Your task to perform on an android device: Search for bose soundlink on ebay.com, select the first entry, and add it to the cart. Image 0: 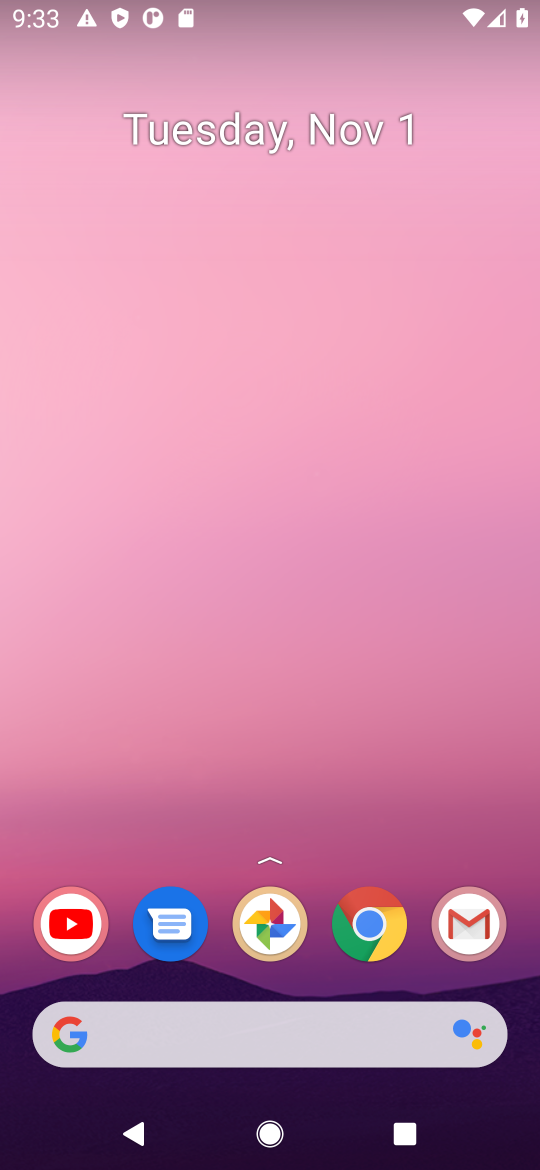
Step 0: click (380, 921)
Your task to perform on an android device: Search for bose soundlink on ebay.com, select the first entry, and add it to the cart. Image 1: 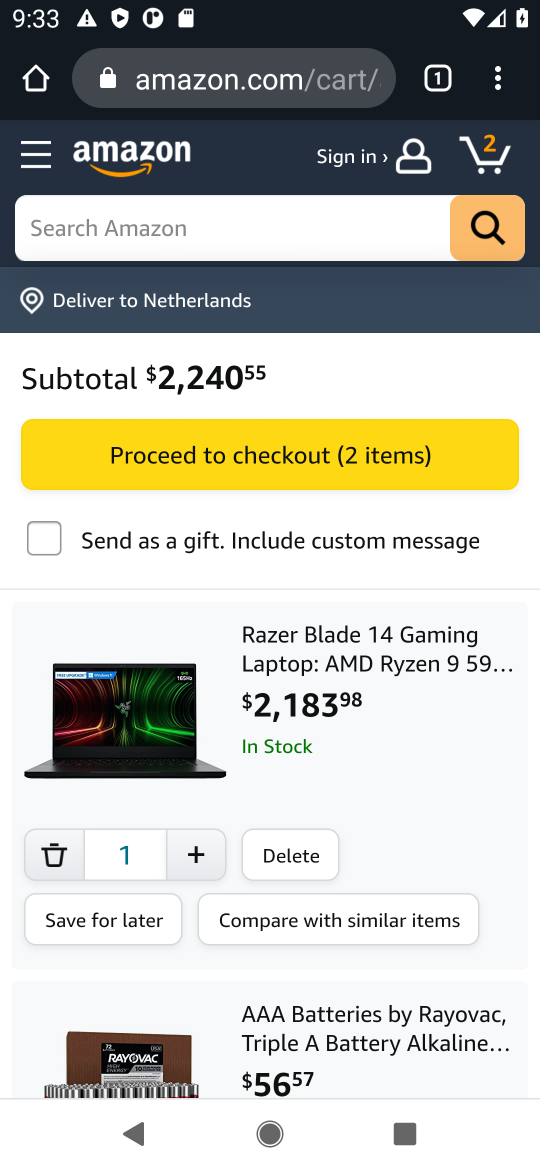
Step 1: click (307, 80)
Your task to perform on an android device: Search for bose soundlink on ebay.com, select the first entry, and add it to the cart. Image 2: 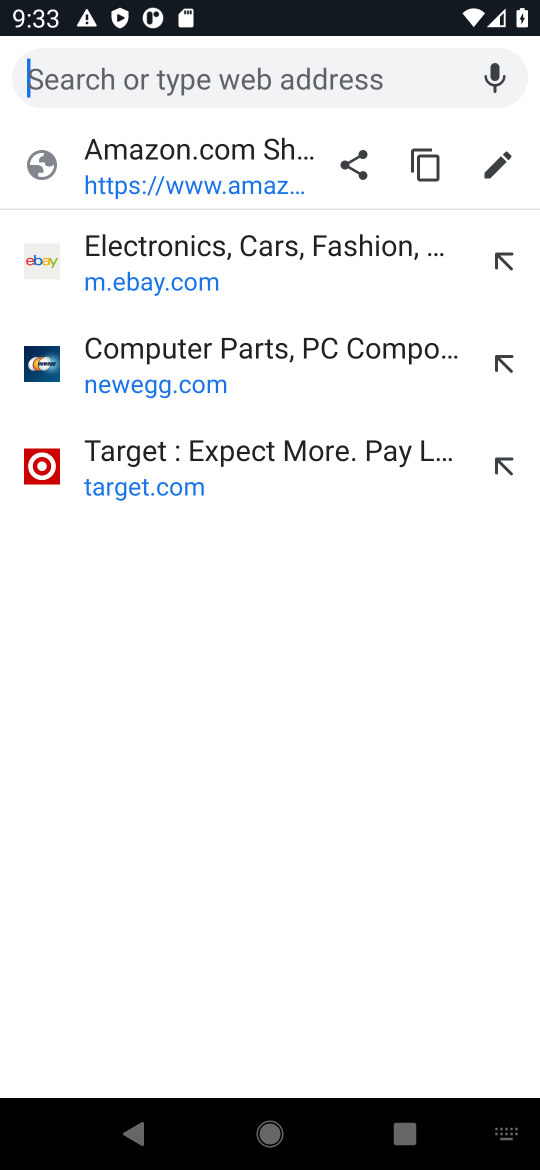
Step 2: click (235, 254)
Your task to perform on an android device: Search for bose soundlink on ebay.com, select the first entry, and add it to the cart. Image 3: 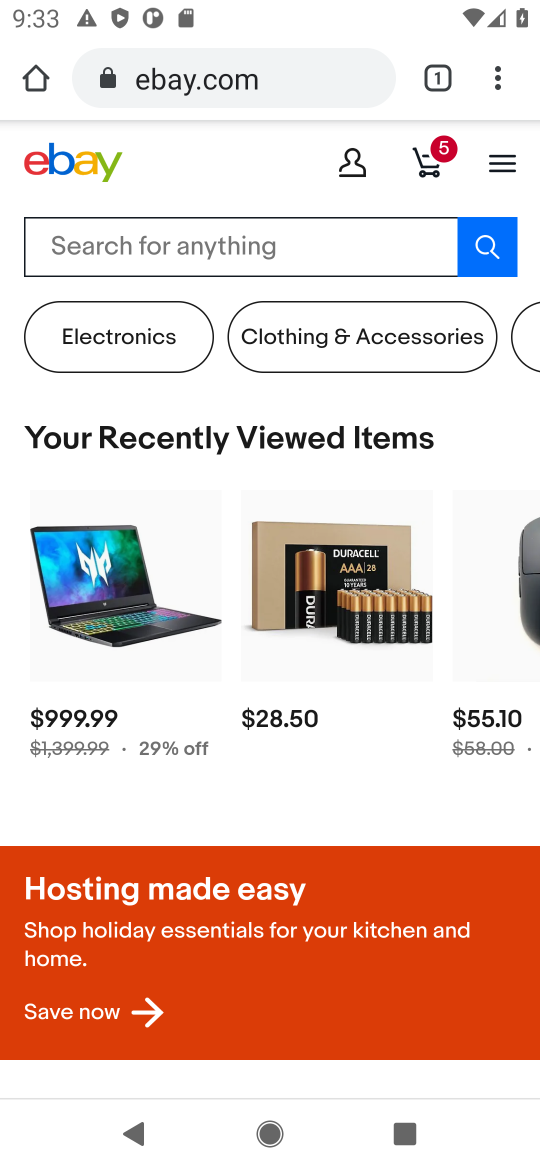
Step 3: click (226, 247)
Your task to perform on an android device: Search for bose soundlink on ebay.com, select the first entry, and add it to the cart. Image 4: 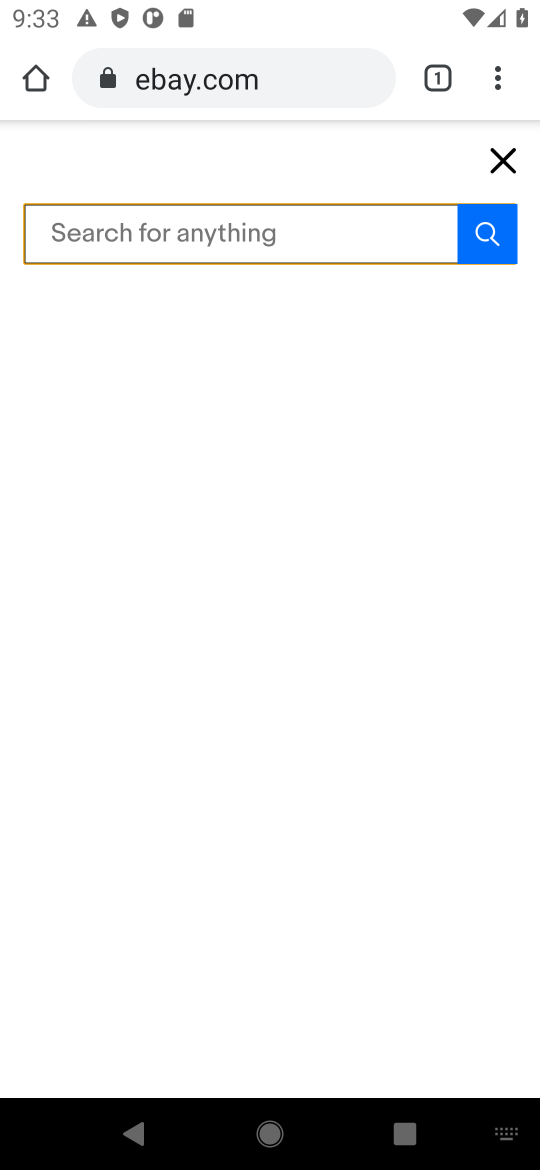
Step 4: type "bose soundlink"
Your task to perform on an android device: Search for bose soundlink on ebay.com, select the first entry, and add it to the cart. Image 5: 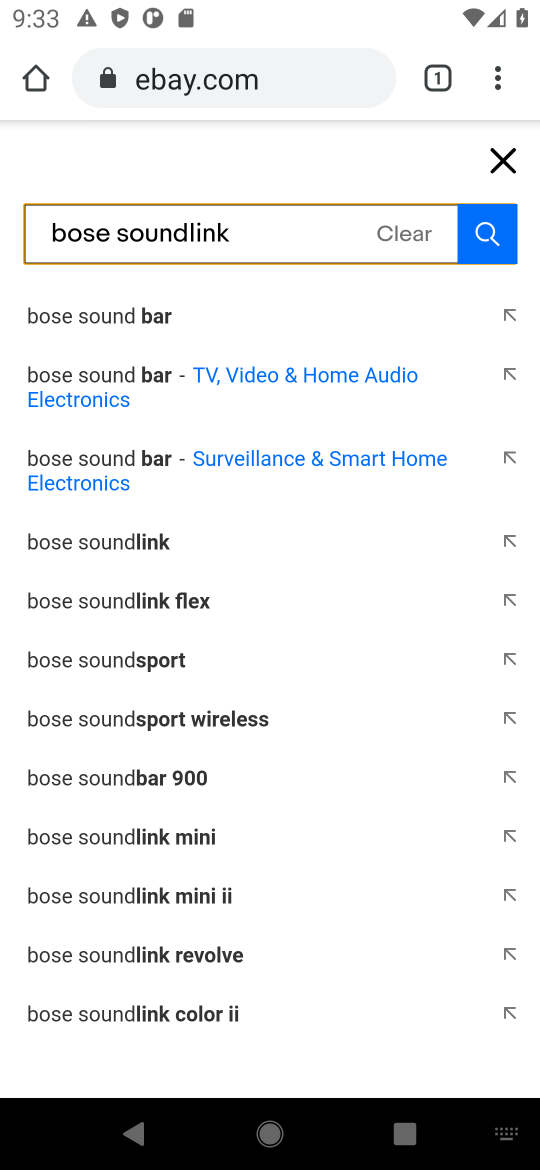
Step 5: click (495, 240)
Your task to perform on an android device: Search for bose soundlink on ebay.com, select the first entry, and add it to the cart. Image 6: 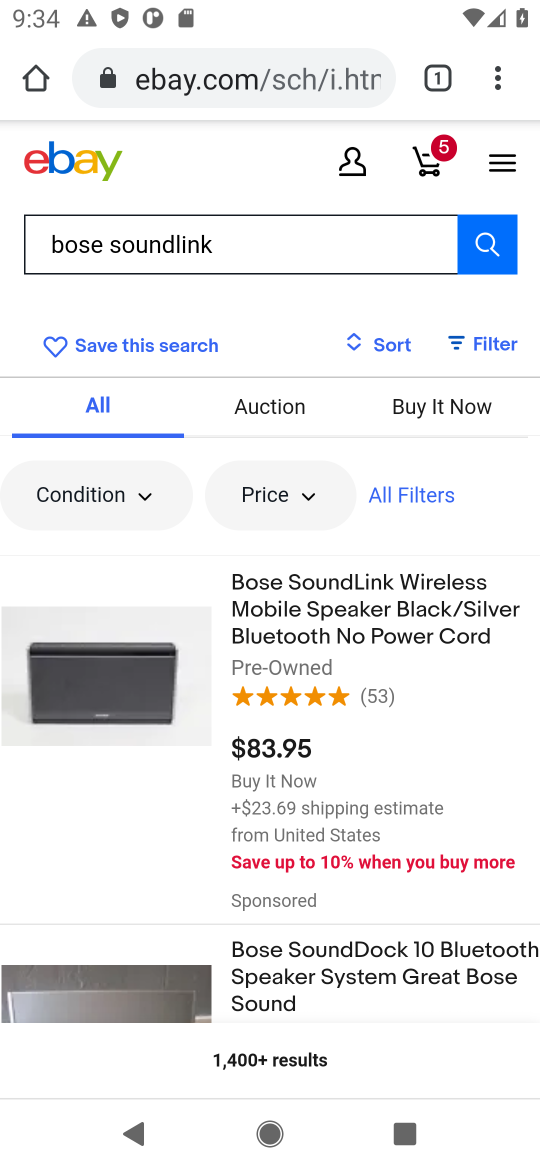
Step 6: click (285, 614)
Your task to perform on an android device: Search for bose soundlink on ebay.com, select the first entry, and add it to the cart. Image 7: 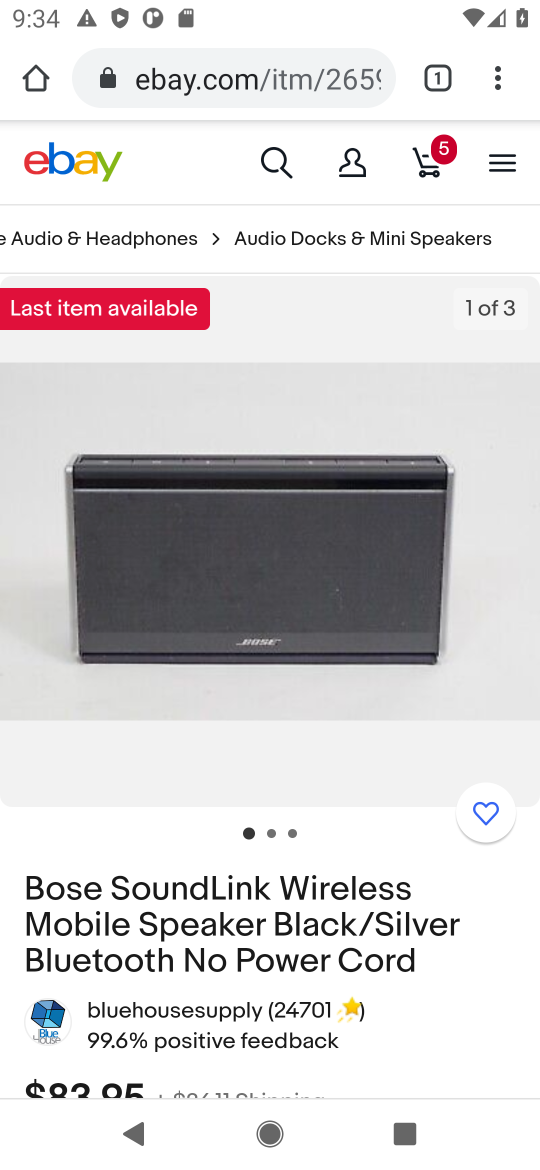
Step 7: drag from (462, 970) to (469, 319)
Your task to perform on an android device: Search for bose soundlink on ebay.com, select the first entry, and add it to the cart. Image 8: 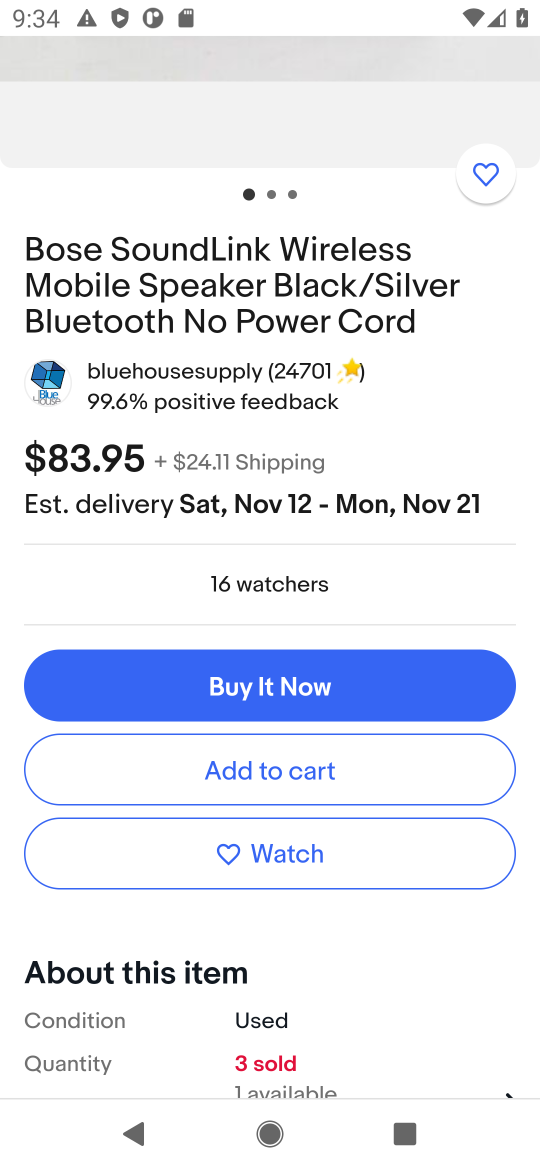
Step 8: click (282, 760)
Your task to perform on an android device: Search for bose soundlink on ebay.com, select the first entry, and add it to the cart. Image 9: 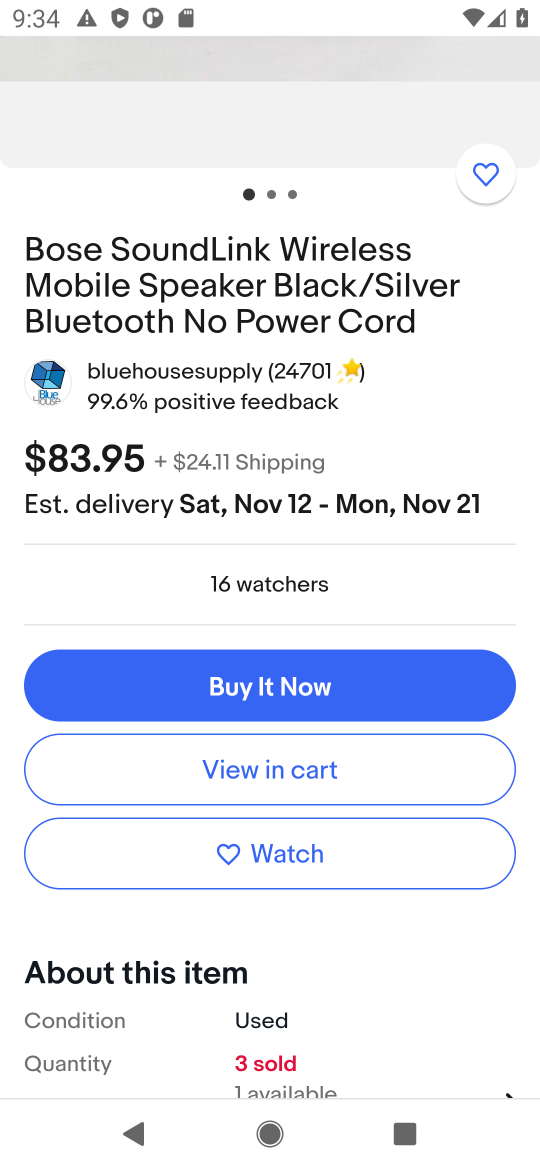
Step 9: task complete